Your task to perform on an android device: Open accessibility settings Image 0: 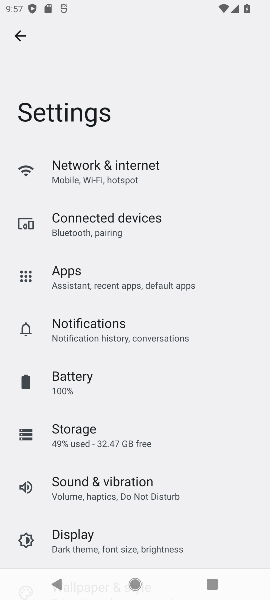
Step 0: drag from (228, 496) to (178, 171)
Your task to perform on an android device: Open accessibility settings Image 1: 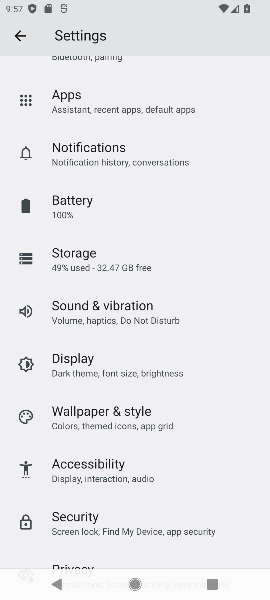
Step 1: click (99, 460)
Your task to perform on an android device: Open accessibility settings Image 2: 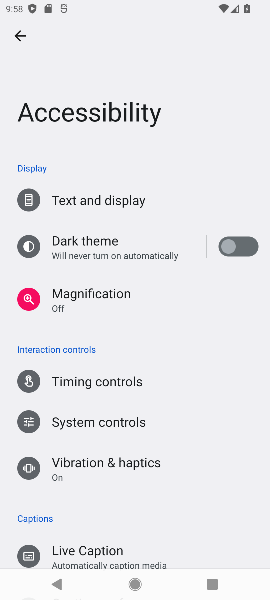
Step 2: task complete